Your task to perform on an android device: turn on sleep mode Image 0: 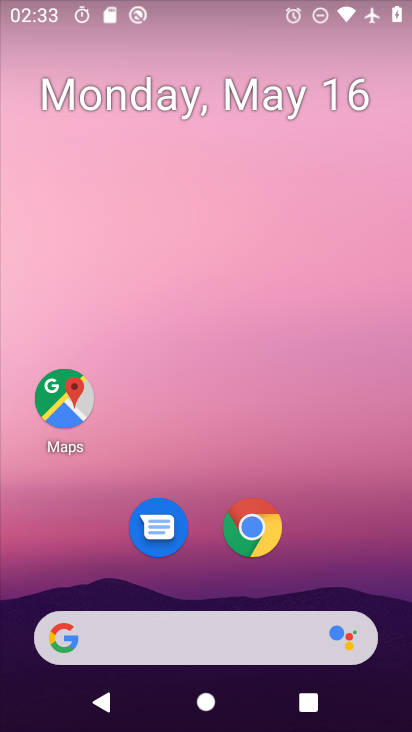
Step 0: drag from (213, 631) to (334, 237)
Your task to perform on an android device: turn on sleep mode Image 1: 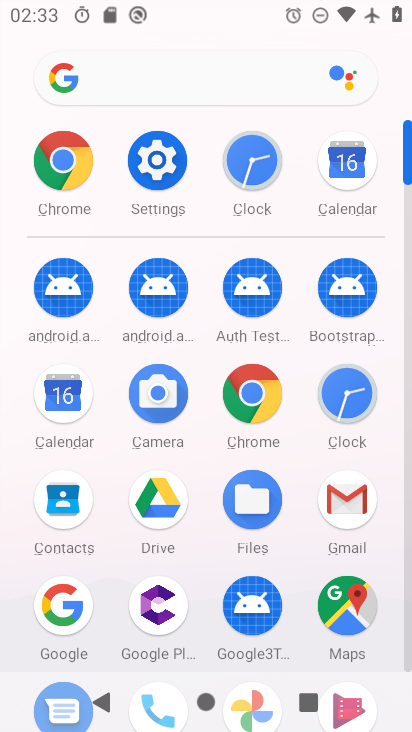
Step 1: click (162, 152)
Your task to perform on an android device: turn on sleep mode Image 2: 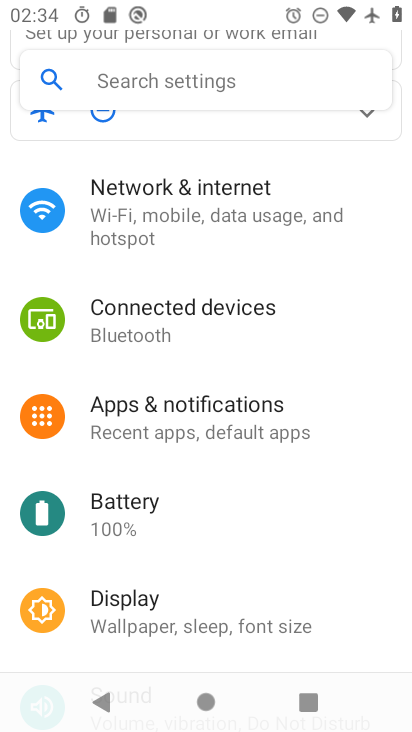
Step 2: drag from (199, 555) to (280, 341)
Your task to perform on an android device: turn on sleep mode Image 3: 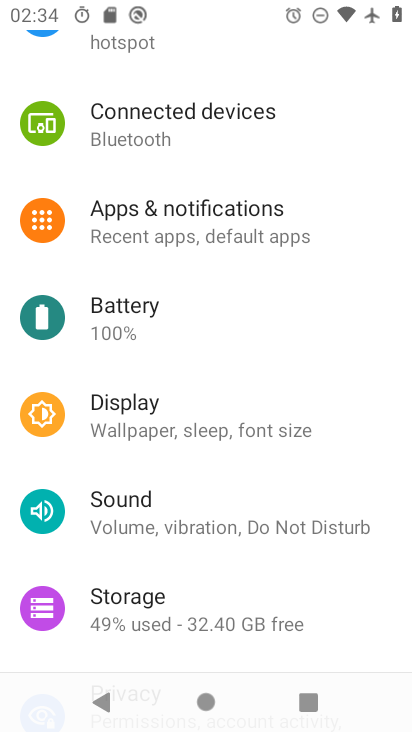
Step 3: click (212, 428)
Your task to perform on an android device: turn on sleep mode Image 4: 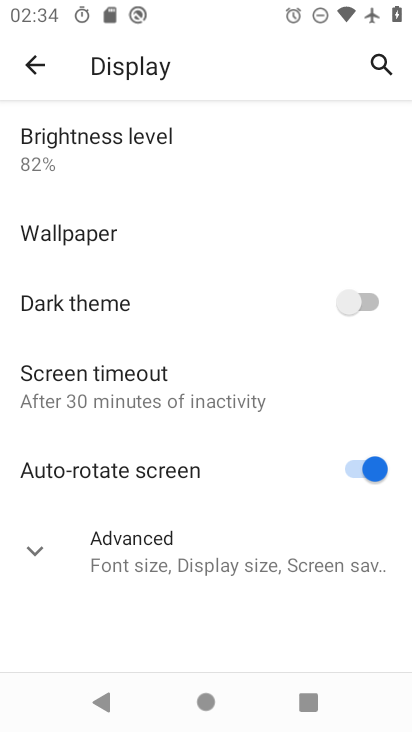
Step 4: task complete